Your task to perform on an android device: What's on the menu at Panera? Image 0: 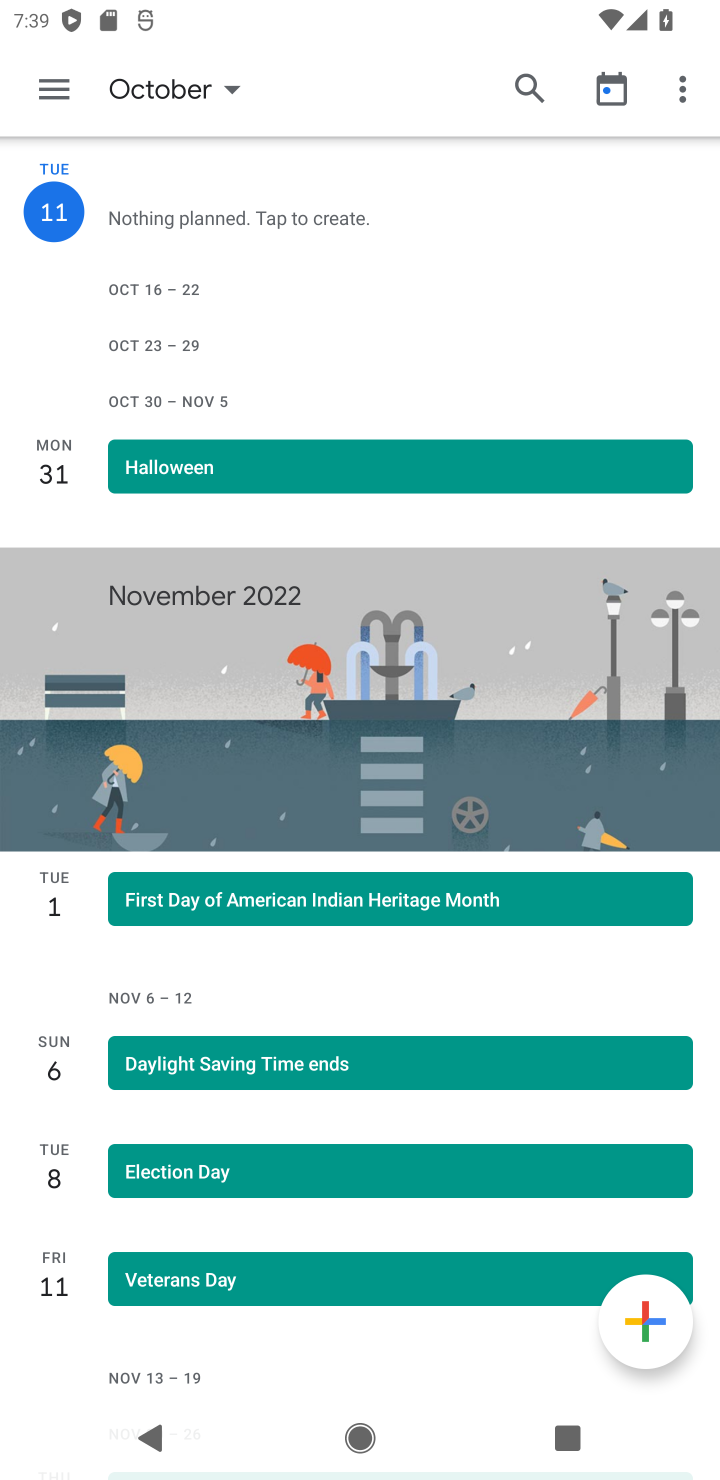
Step 0: press home button
Your task to perform on an android device: What's on the menu at Panera? Image 1: 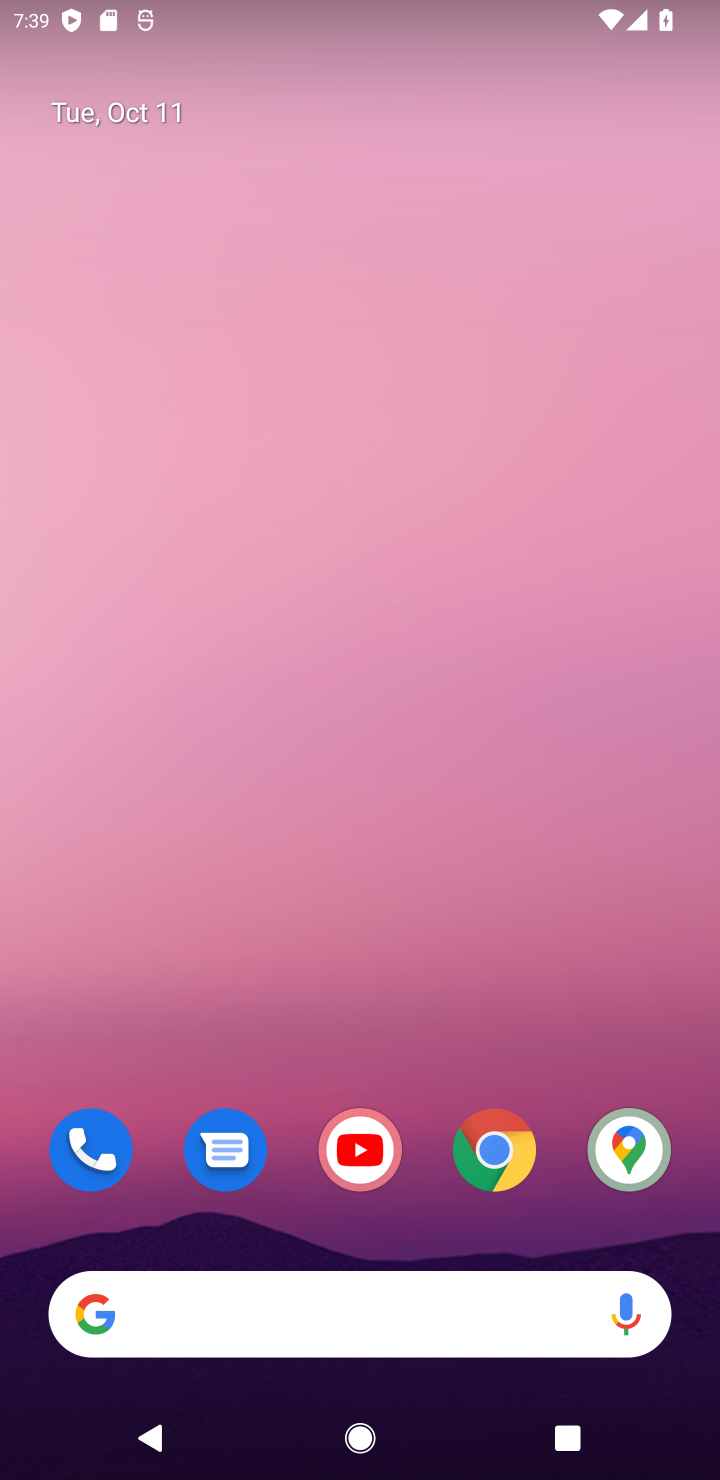
Step 1: click (506, 1154)
Your task to perform on an android device: What's on the menu at Panera? Image 2: 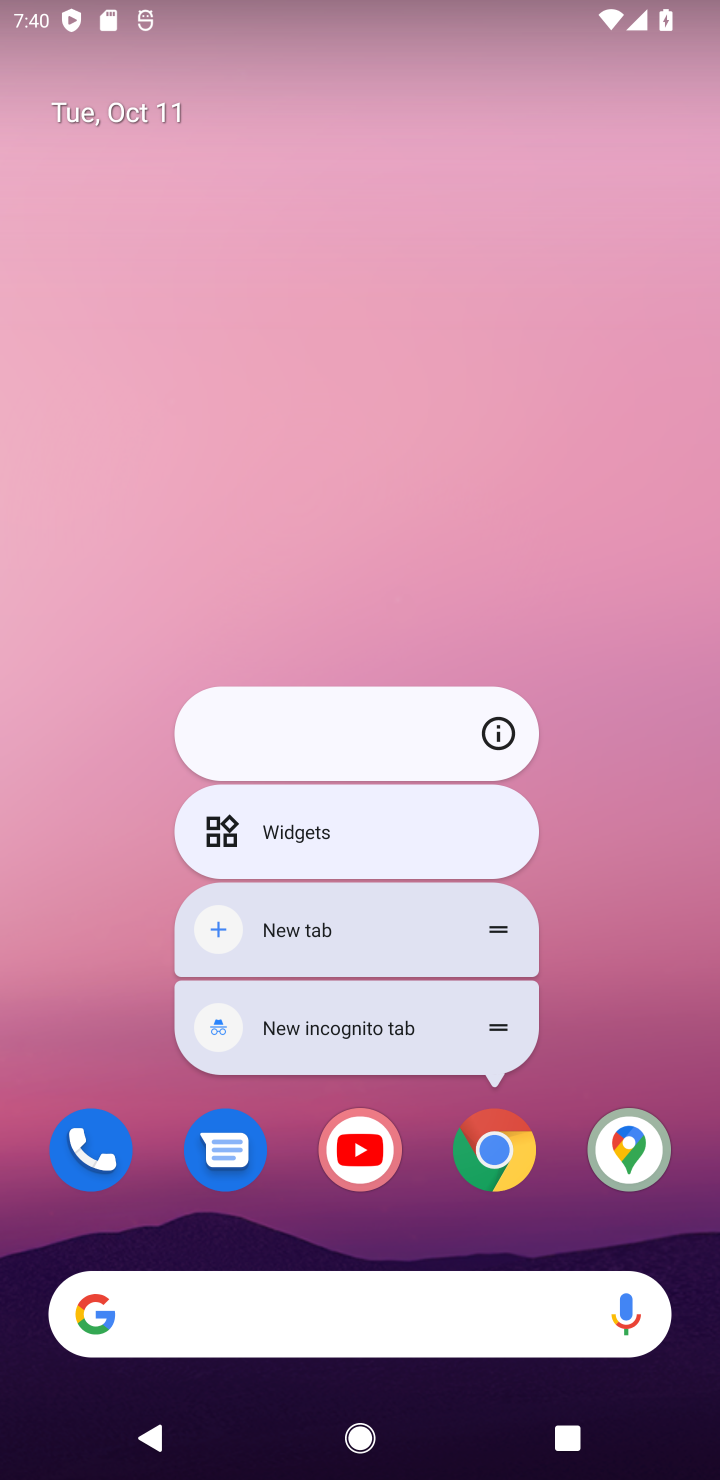
Step 2: click (496, 1152)
Your task to perform on an android device: What's on the menu at Panera? Image 3: 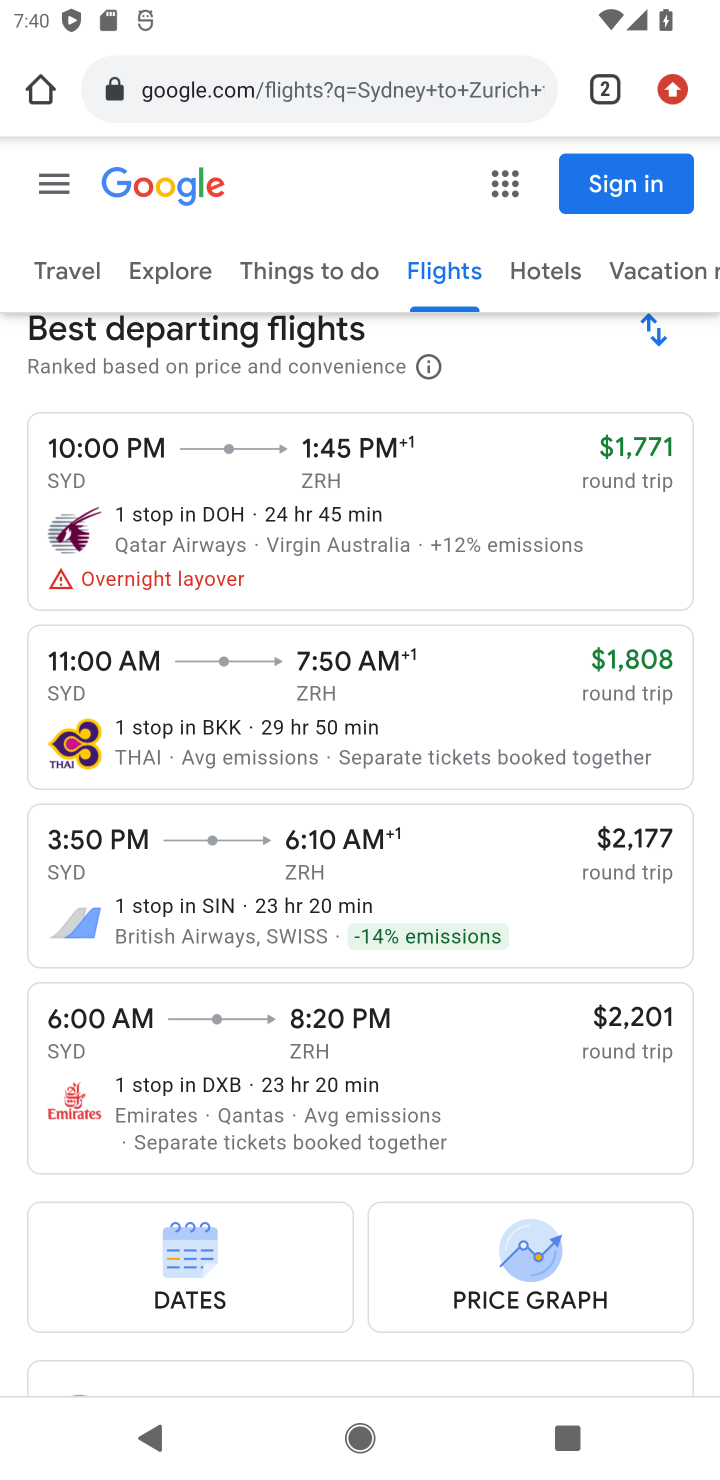
Step 3: click (338, 97)
Your task to perform on an android device: What's on the menu at Panera? Image 4: 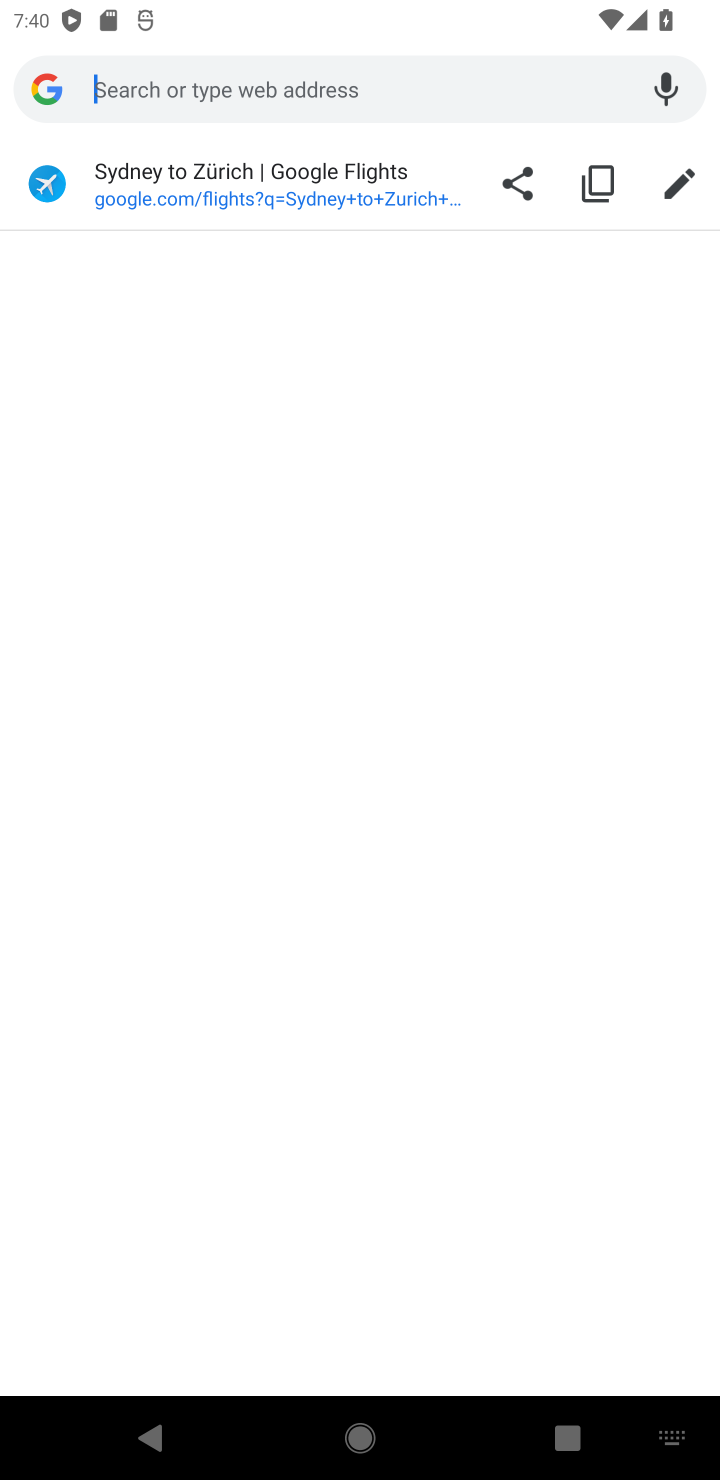
Step 4: type "menu at Panera"
Your task to perform on an android device: What's on the menu at Panera? Image 5: 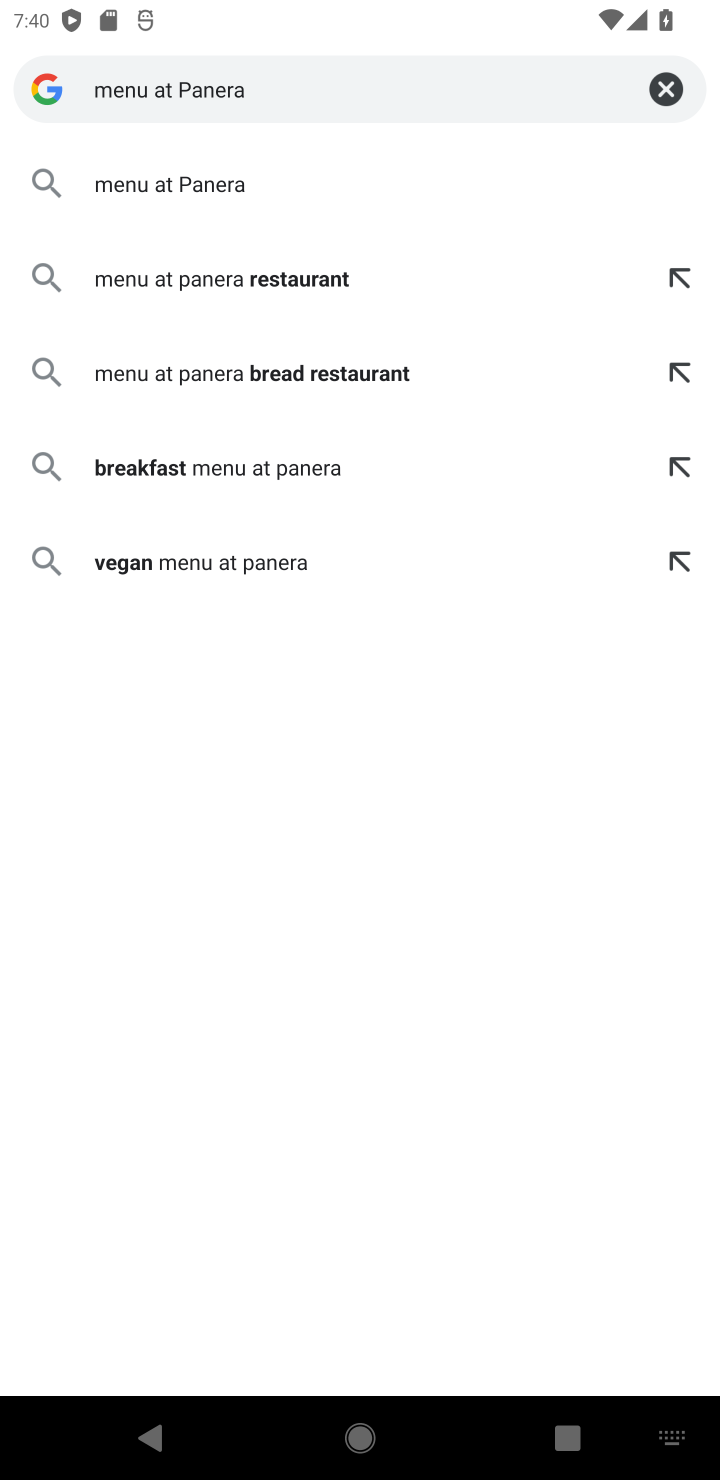
Step 5: click (160, 192)
Your task to perform on an android device: What's on the menu at Panera? Image 6: 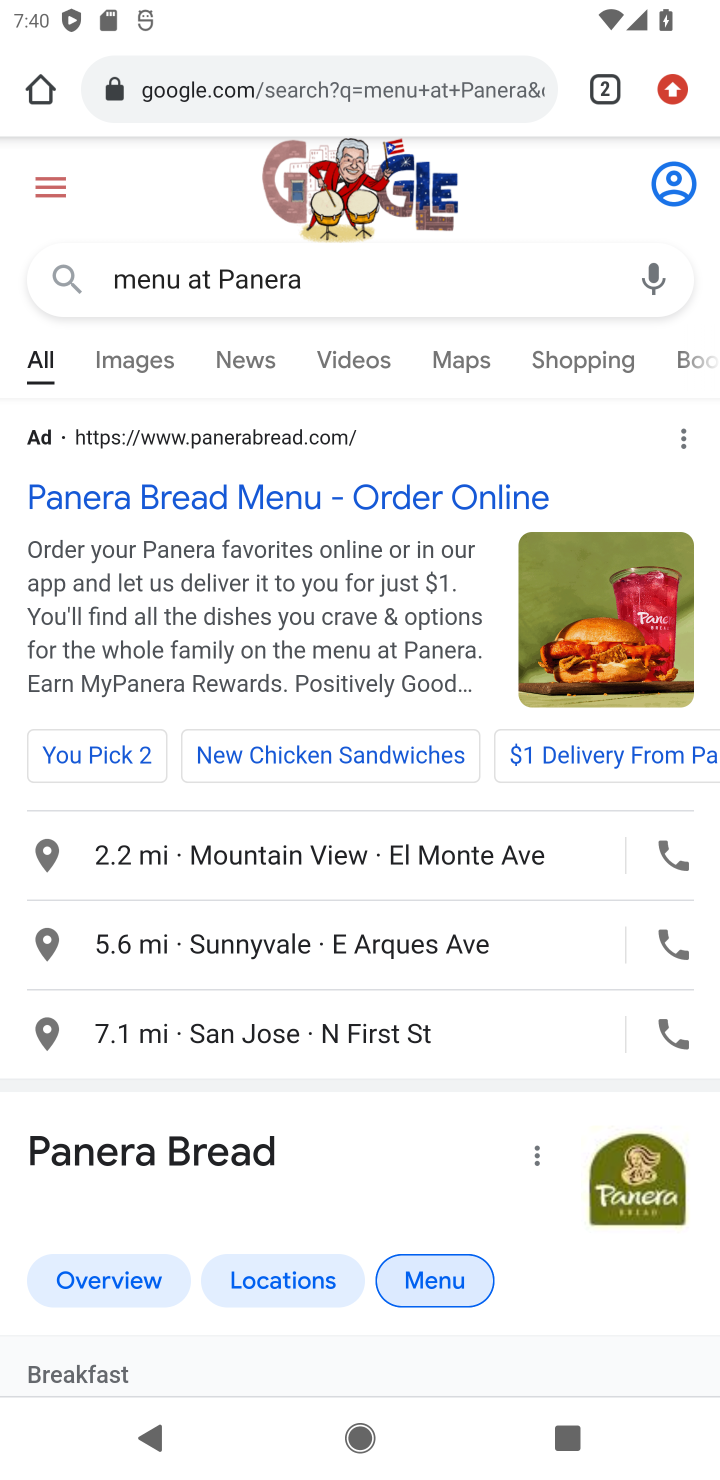
Step 6: task complete